Your task to perform on an android device: open sync settings in chrome Image 0: 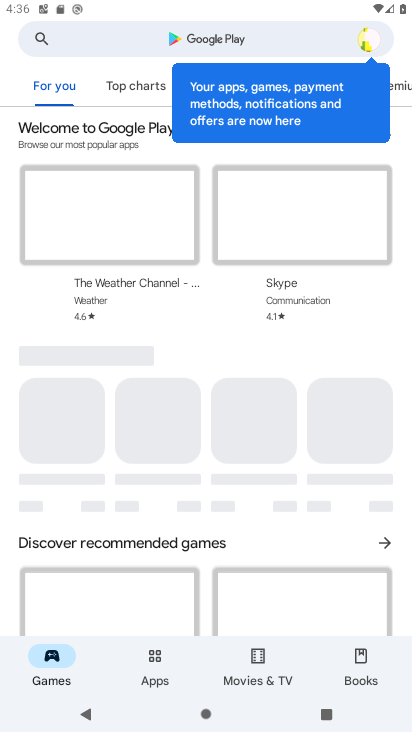
Step 0: press home button
Your task to perform on an android device: open sync settings in chrome Image 1: 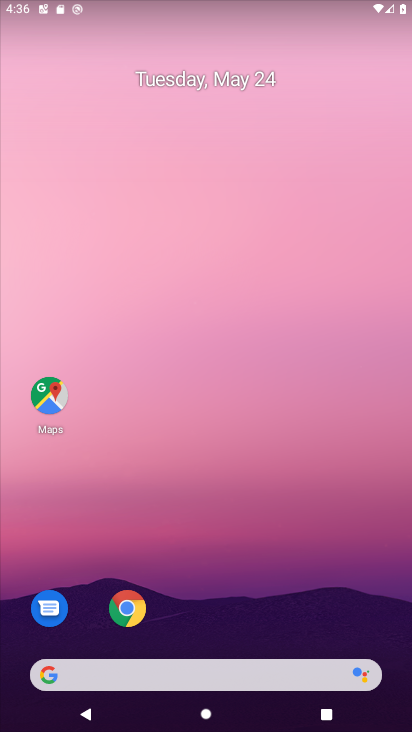
Step 1: click (128, 611)
Your task to perform on an android device: open sync settings in chrome Image 2: 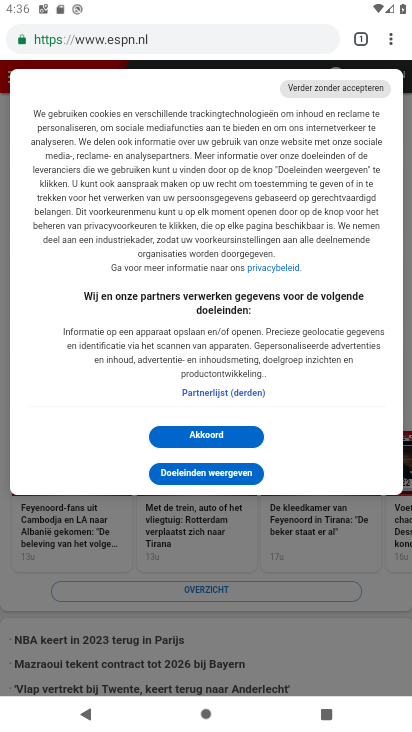
Step 2: click (387, 41)
Your task to perform on an android device: open sync settings in chrome Image 3: 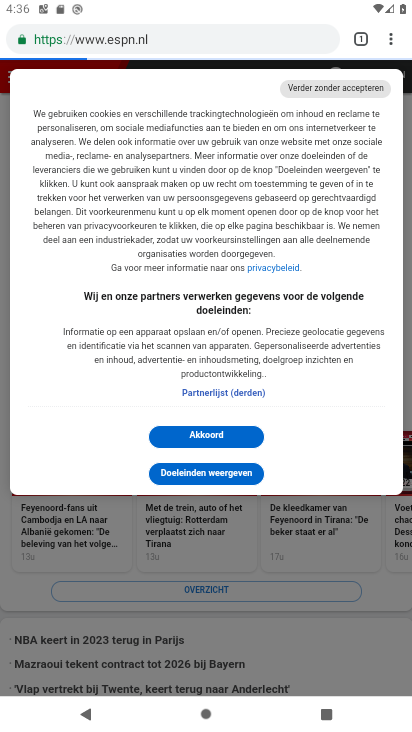
Step 3: click (392, 41)
Your task to perform on an android device: open sync settings in chrome Image 4: 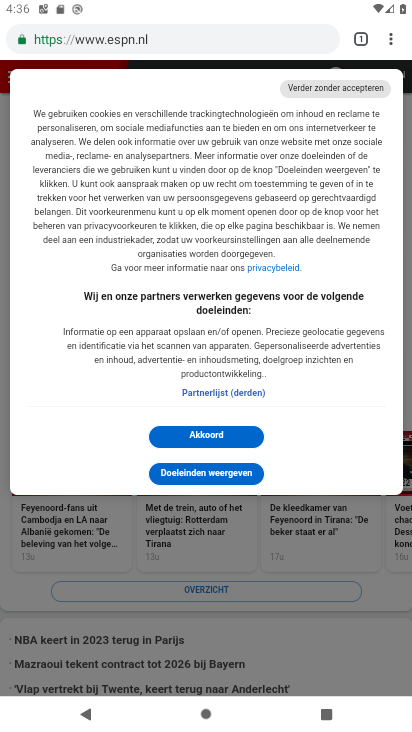
Step 4: click (392, 41)
Your task to perform on an android device: open sync settings in chrome Image 5: 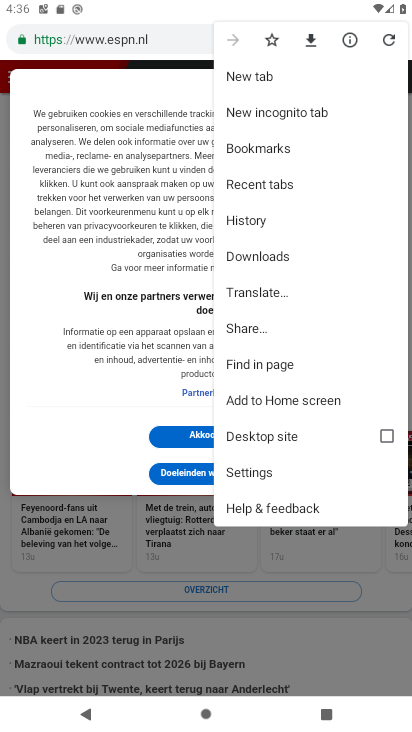
Step 5: click (248, 477)
Your task to perform on an android device: open sync settings in chrome Image 6: 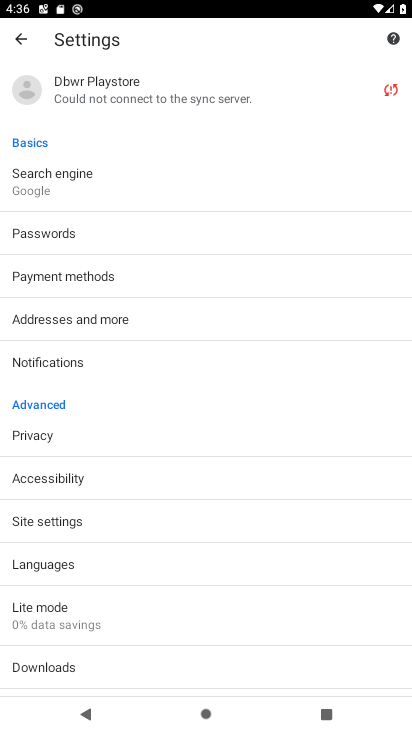
Step 6: click (96, 80)
Your task to perform on an android device: open sync settings in chrome Image 7: 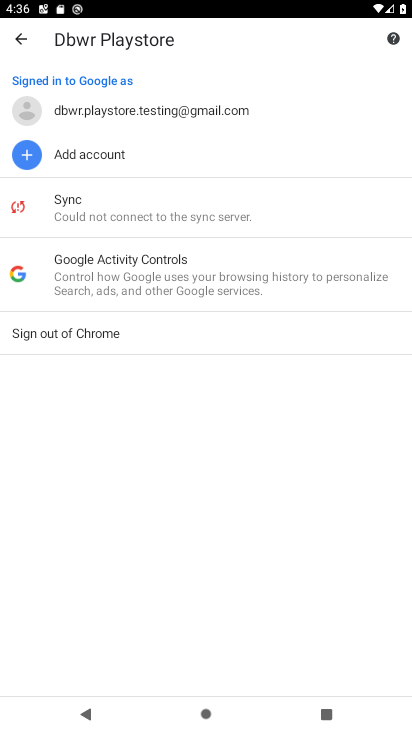
Step 7: click (83, 205)
Your task to perform on an android device: open sync settings in chrome Image 8: 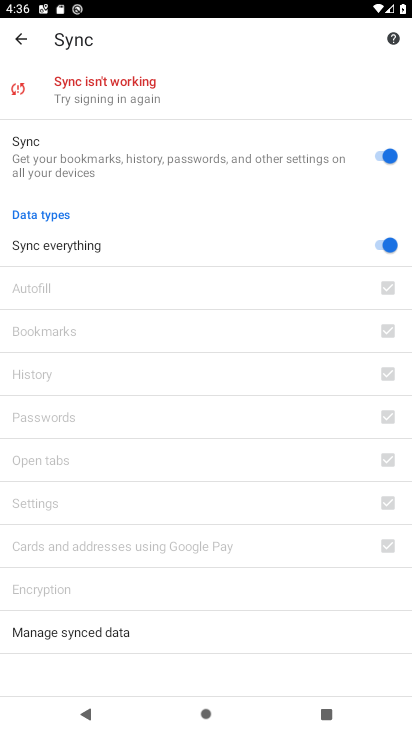
Step 8: task complete